Your task to perform on an android device: Open calendar and show me the fourth week of next month Image 0: 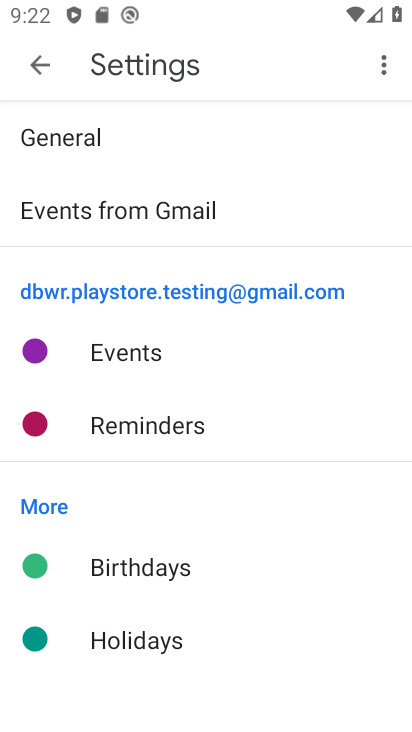
Step 0: press home button
Your task to perform on an android device: Open calendar and show me the fourth week of next month Image 1: 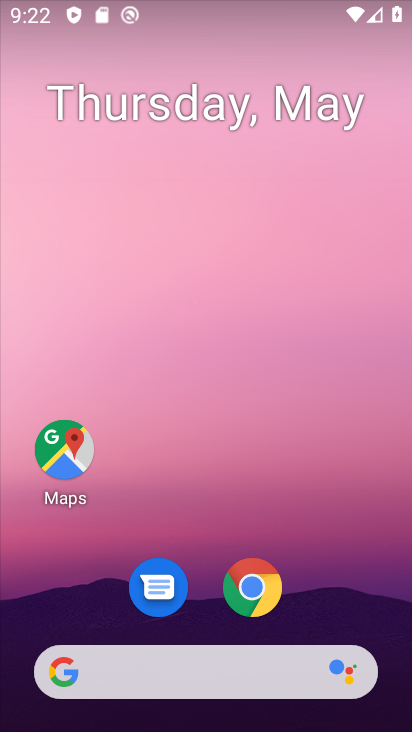
Step 1: drag from (339, 603) to (294, 7)
Your task to perform on an android device: Open calendar and show me the fourth week of next month Image 2: 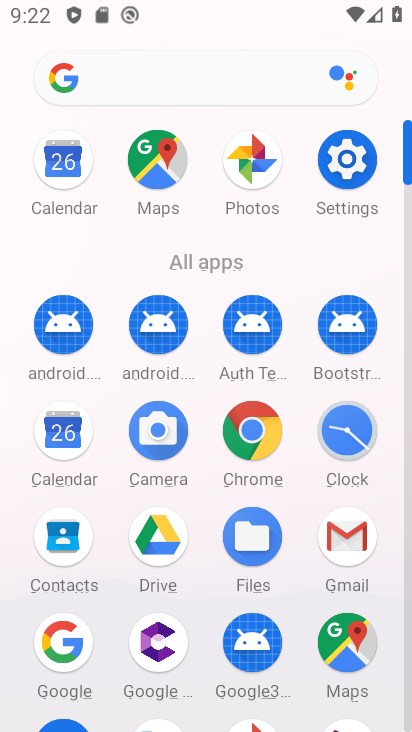
Step 2: click (46, 166)
Your task to perform on an android device: Open calendar and show me the fourth week of next month Image 3: 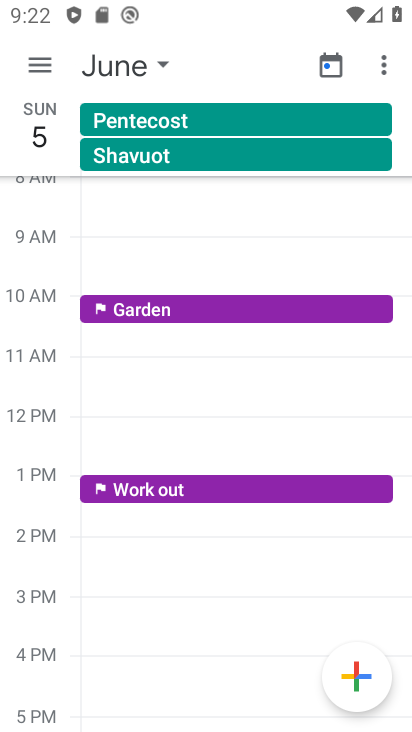
Step 3: click (26, 57)
Your task to perform on an android device: Open calendar and show me the fourth week of next month Image 4: 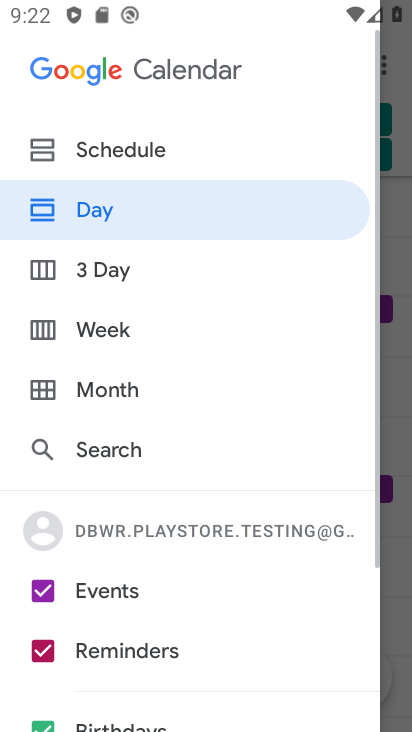
Step 4: click (98, 325)
Your task to perform on an android device: Open calendar and show me the fourth week of next month Image 5: 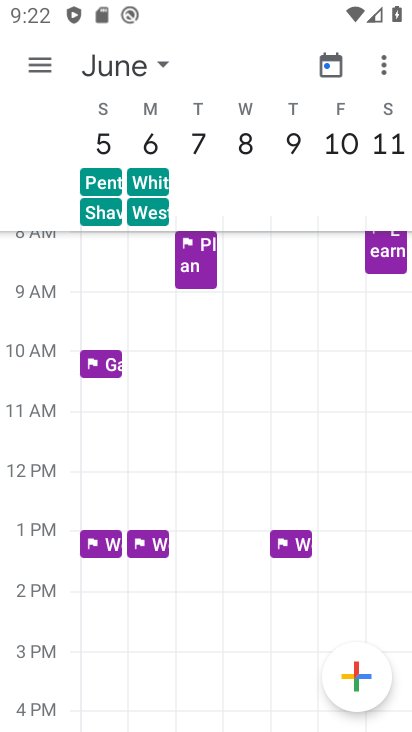
Step 5: task complete